Your task to perform on an android device: Open Youtube and go to "Your channel" Image 0: 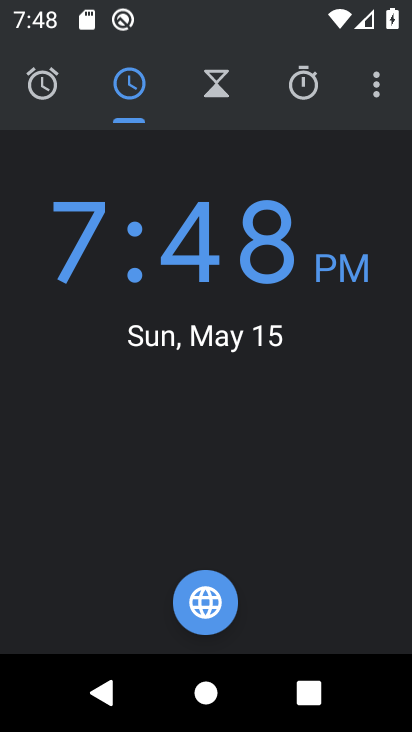
Step 0: press home button
Your task to perform on an android device: Open Youtube and go to "Your channel" Image 1: 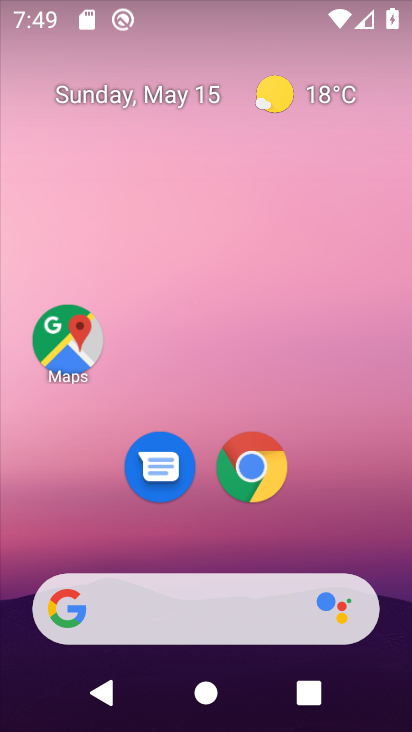
Step 1: drag from (260, 533) to (275, 36)
Your task to perform on an android device: Open Youtube and go to "Your channel" Image 2: 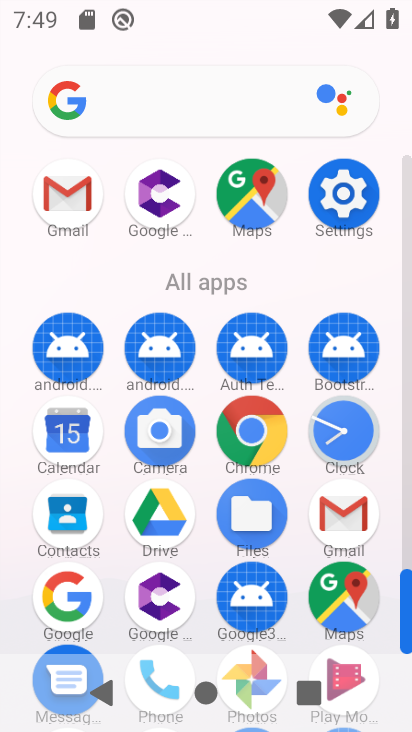
Step 2: drag from (289, 593) to (283, 263)
Your task to perform on an android device: Open Youtube and go to "Your channel" Image 3: 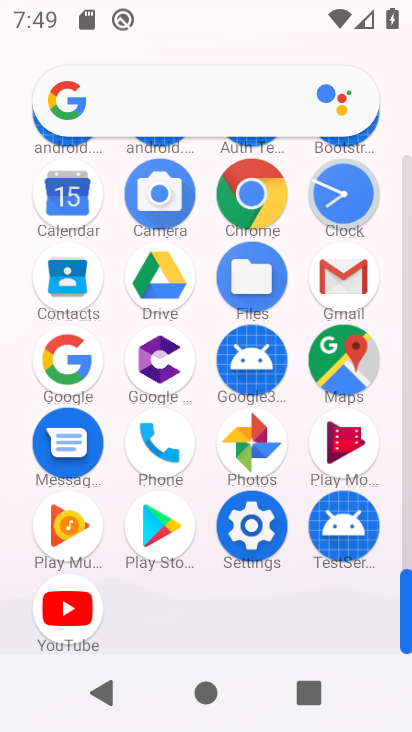
Step 3: click (72, 612)
Your task to perform on an android device: Open Youtube and go to "Your channel" Image 4: 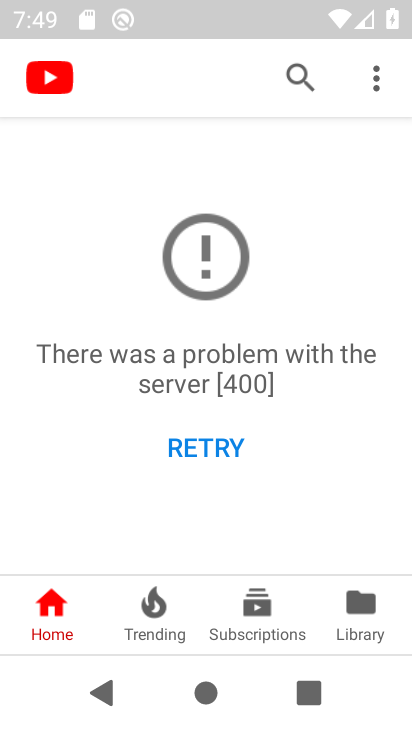
Step 4: click (196, 456)
Your task to perform on an android device: Open Youtube and go to "Your channel" Image 5: 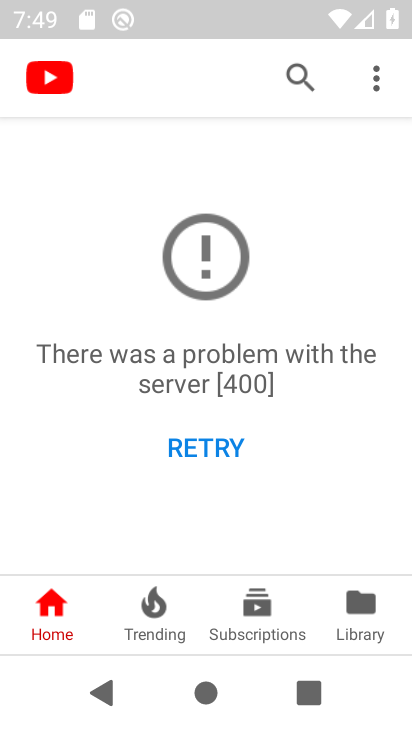
Step 5: click (378, 82)
Your task to perform on an android device: Open Youtube and go to "Your channel" Image 6: 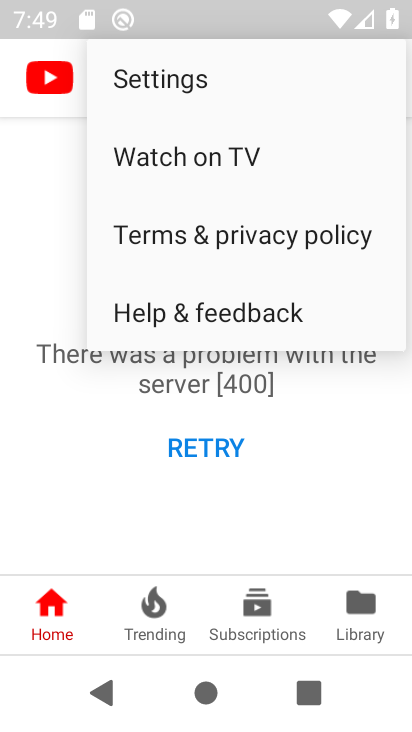
Step 6: click (200, 458)
Your task to perform on an android device: Open Youtube and go to "Your channel" Image 7: 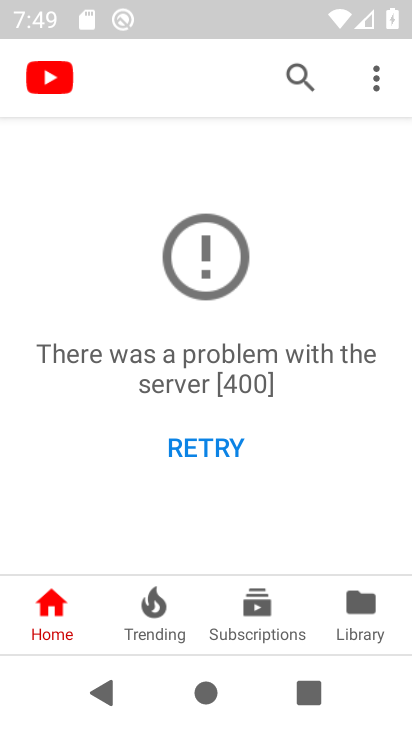
Step 7: click (200, 451)
Your task to perform on an android device: Open Youtube and go to "Your channel" Image 8: 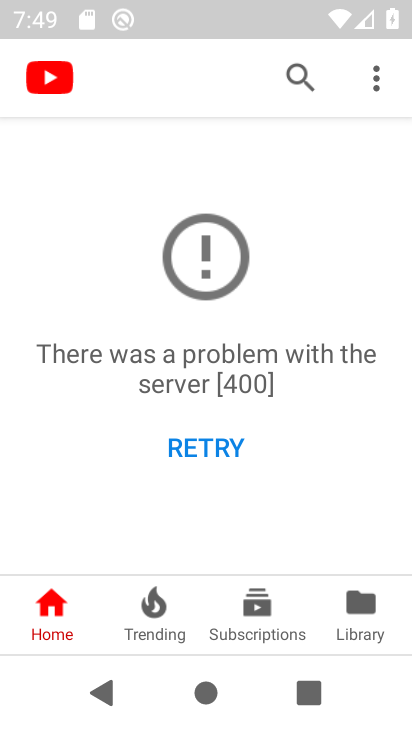
Step 8: click (200, 441)
Your task to perform on an android device: Open Youtube and go to "Your channel" Image 9: 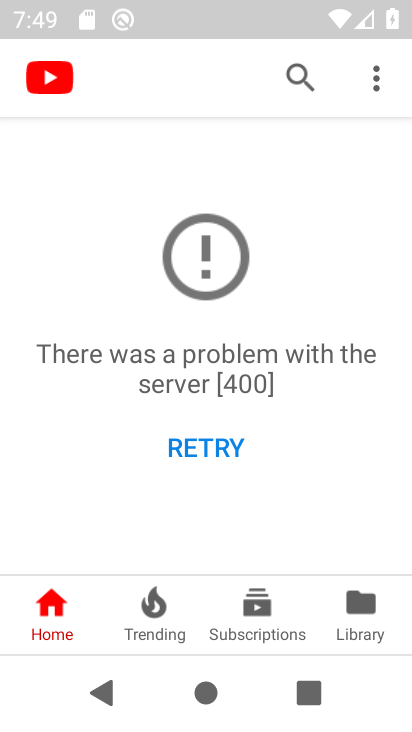
Step 9: click (205, 445)
Your task to perform on an android device: Open Youtube and go to "Your channel" Image 10: 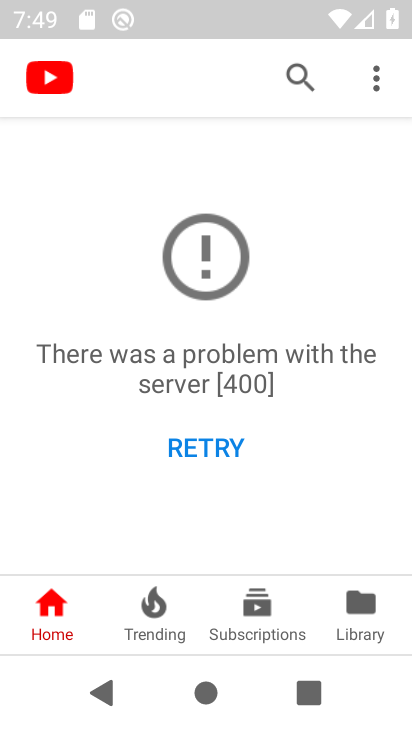
Step 10: click (191, 431)
Your task to perform on an android device: Open Youtube and go to "Your channel" Image 11: 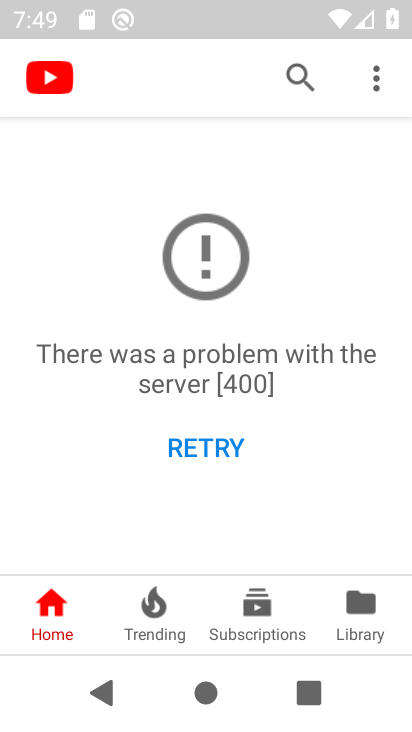
Step 11: click (190, 432)
Your task to perform on an android device: Open Youtube and go to "Your channel" Image 12: 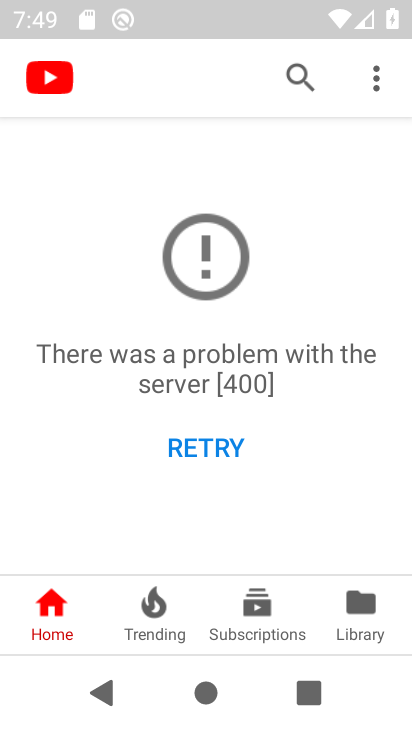
Step 12: task complete